Your task to perform on an android device: change the clock display to digital Image 0: 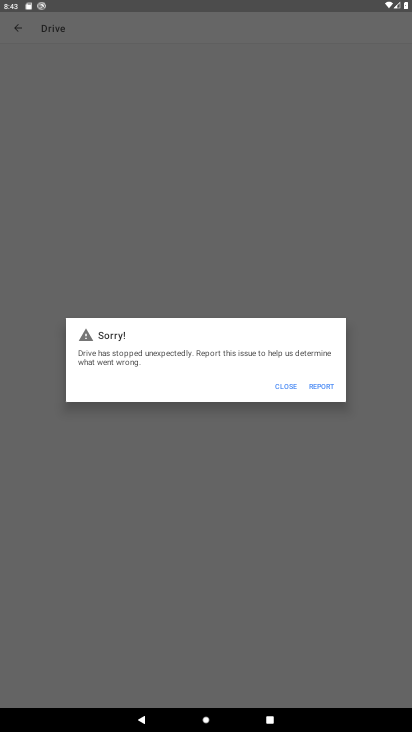
Step 0: press home button
Your task to perform on an android device: change the clock display to digital Image 1: 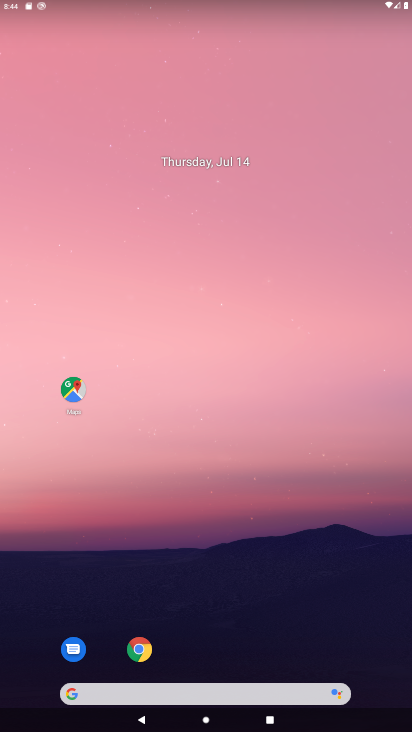
Step 1: drag from (272, 662) to (277, 31)
Your task to perform on an android device: change the clock display to digital Image 2: 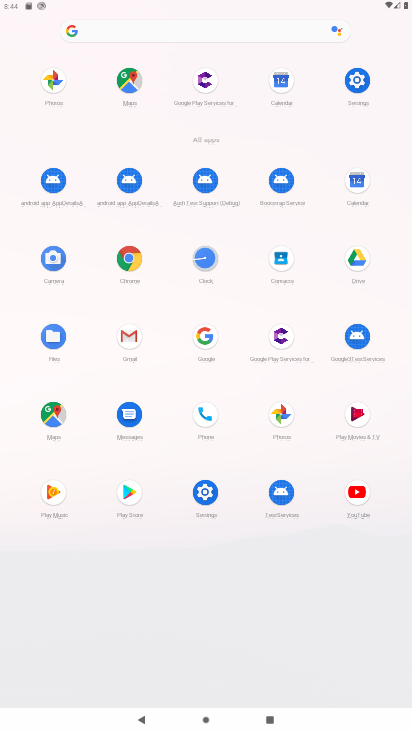
Step 2: click (201, 263)
Your task to perform on an android device: change the clock display to digital Image 3: 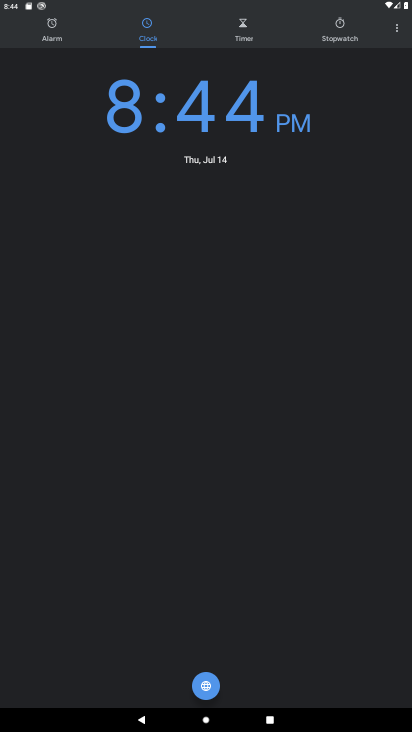
Step 3: click (392, 39)
Your task to perform on an android device: change the clock display to digital Image 4: 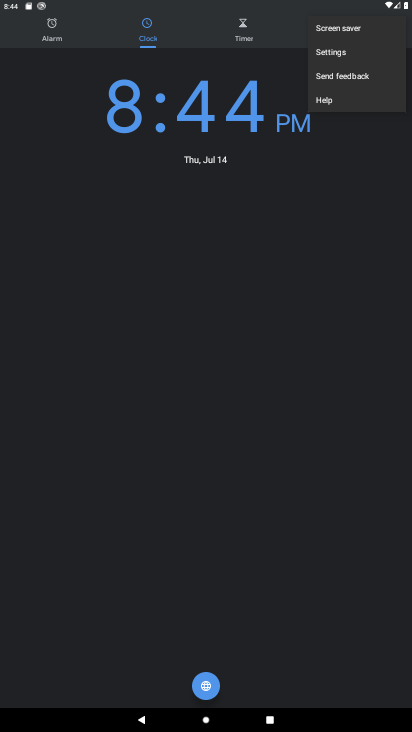
Step 4: click (327, 47)
Your task to perform on an android device: change the clock display to digital Image 5: 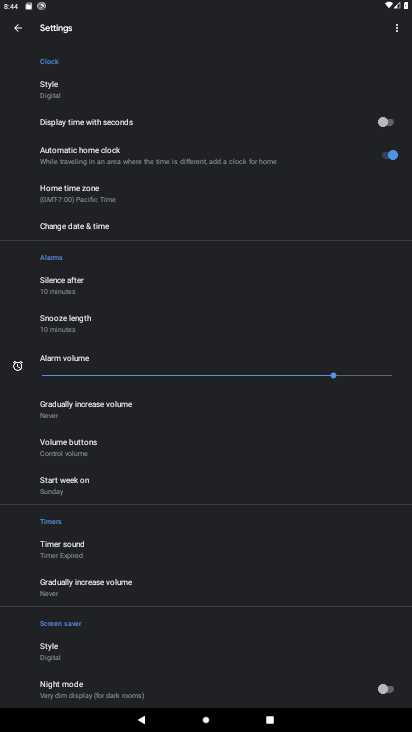
Step 5: click (57, 98)
Your task to perform on an android device: change the clock display to digital Image 6: 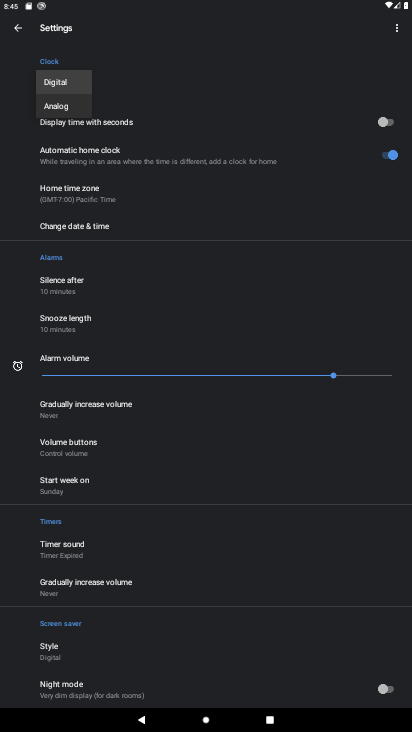
Step 6: task complete